Your task to perform on an android device: set the stopwatch Image 0: 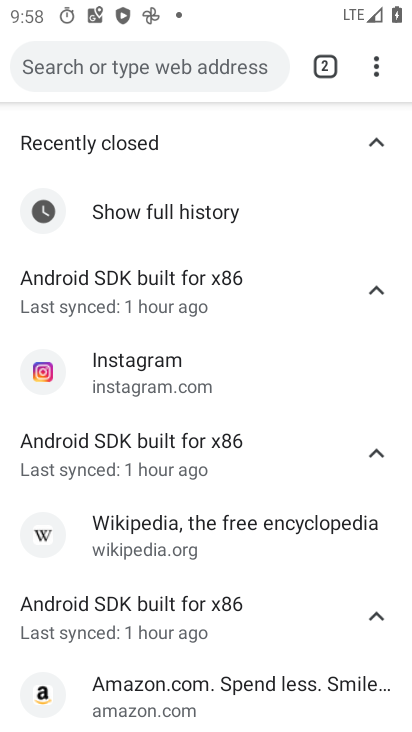
Step 0: click (348, 42)
Your task to perform on an android device: set the stopwatch Image 1: 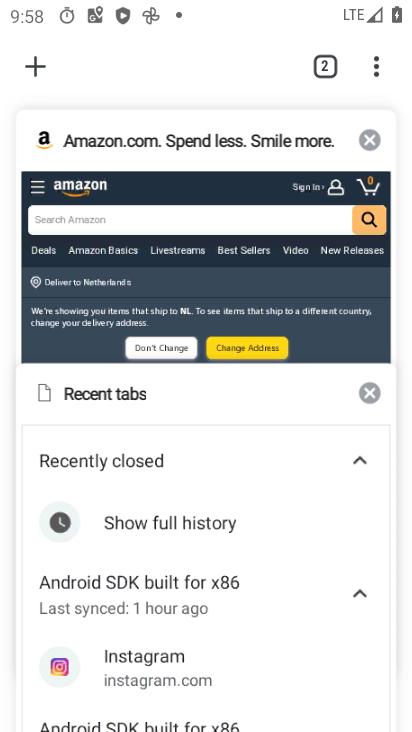
Step 1: press home button
Your task to perform on an android device: set the stopwatch Image 2: 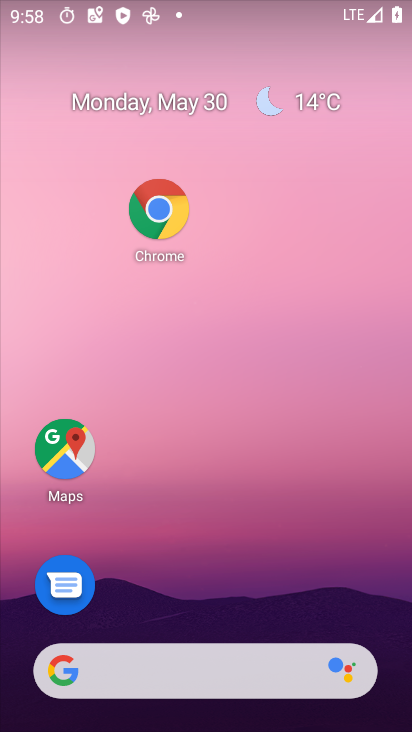
Step 2: drag from (225, 600) to (276, 1)
Your task to perform on an android device: set the stopwatch Image 3: 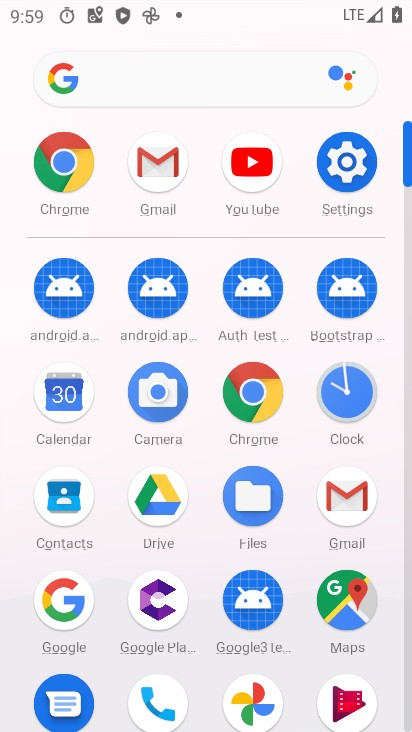
Step 3: click (354, 394)
Your task to perform on an android device: set the stopwatch Image 4: 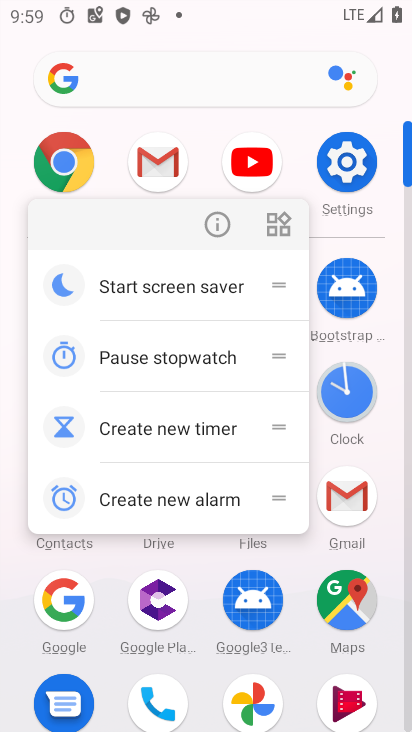
Step 4: click (215, 225)
Your task to perform on an android device: set the stopwatch Image 5: 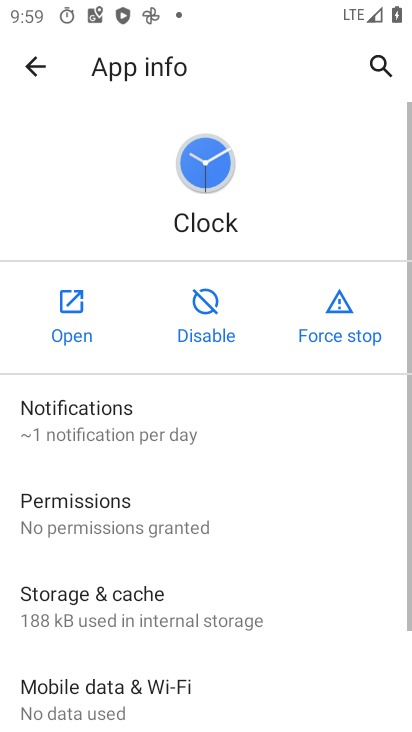
Step 5: click (77, 304)
Your task to perform on an android device: set the stopwatch Image 6: 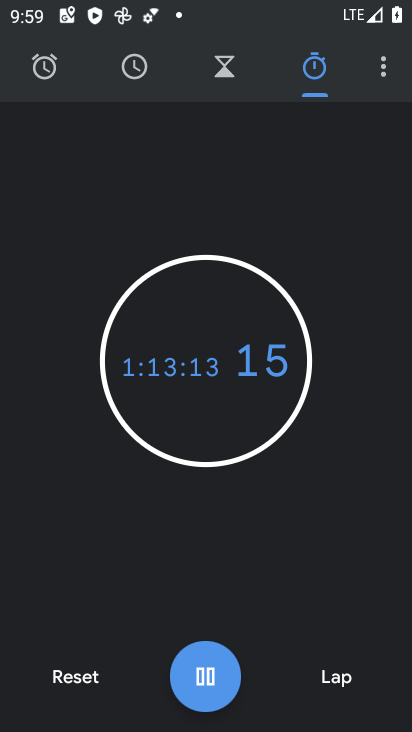
Step 6: click (190, 687)
Your task to perform on an android device: set the stopwatch Image 7: 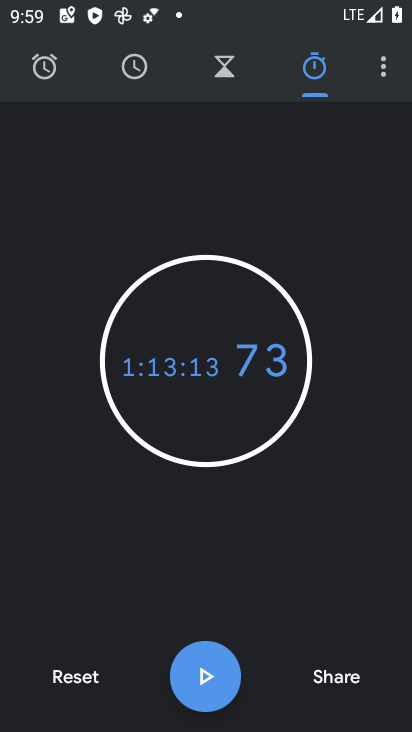
Step 7: click (92, 666)
Your task to perform on an android device: set the stopwatch Image 8: 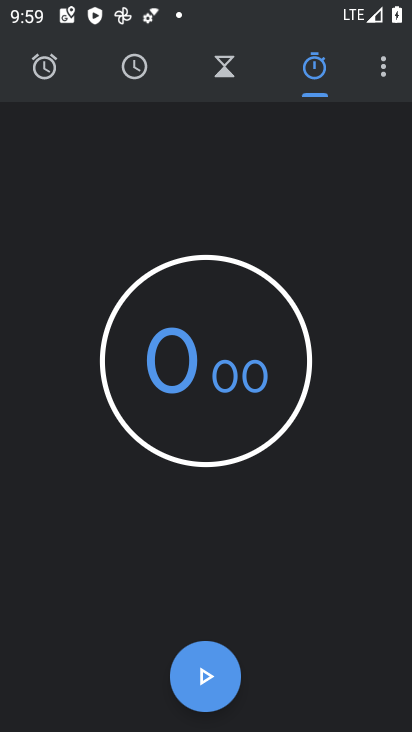
Step 8: click (211, 680)
Your task to perform on an android device: set the stopwatch Image 9: 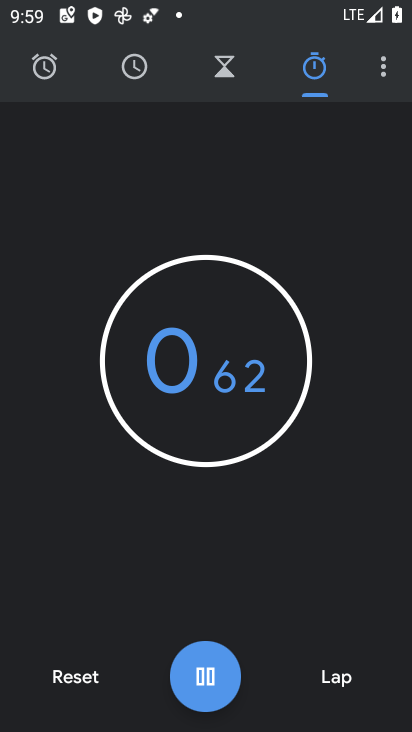
Step 9: task complete